Your task to perform on an android device: Clear all items from cart on ebay. Search for "logitech g502" on ebay, select the first entry, and add it to the cart. Image 0: 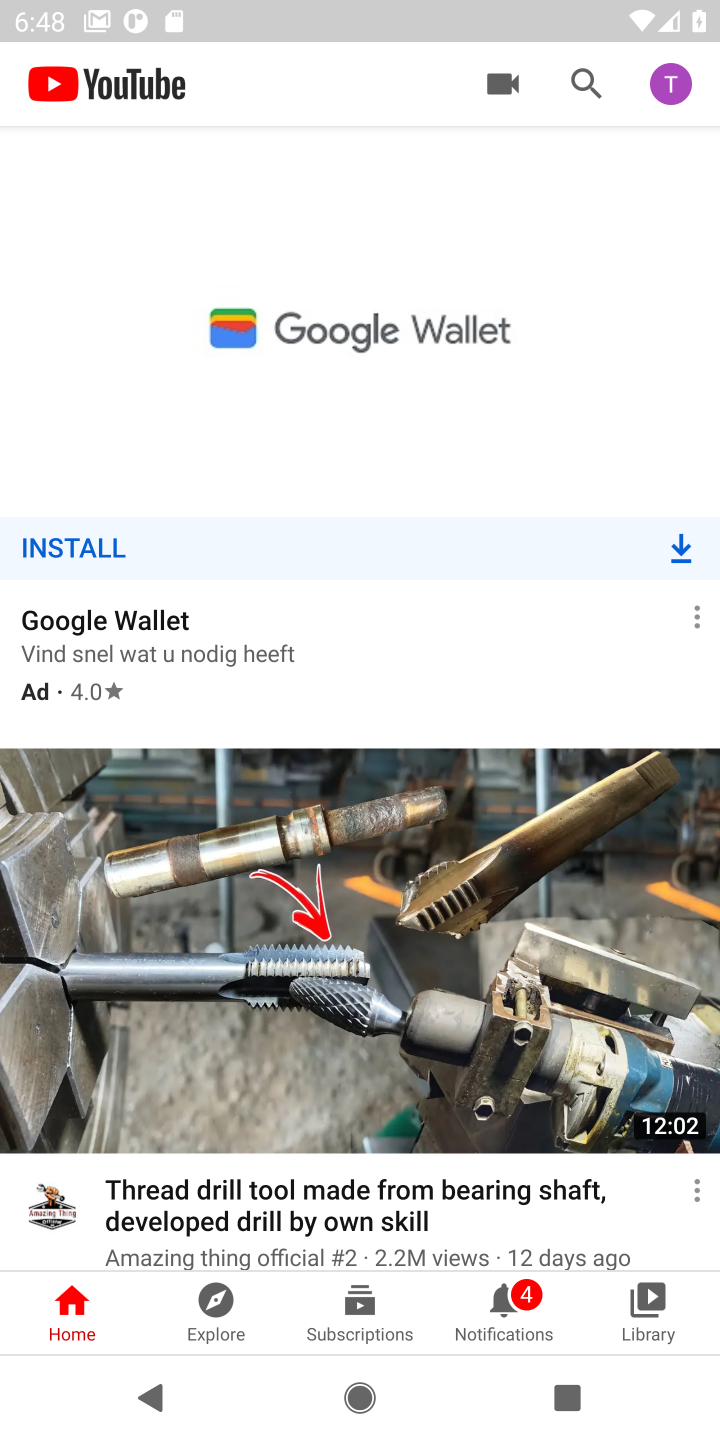
Step 0: press home button
Your task to perform on an android device: Clear all items from cart on ebay. Search for "logitech g502" on ebay, select the first entry, and add it to the cart. Image 1: 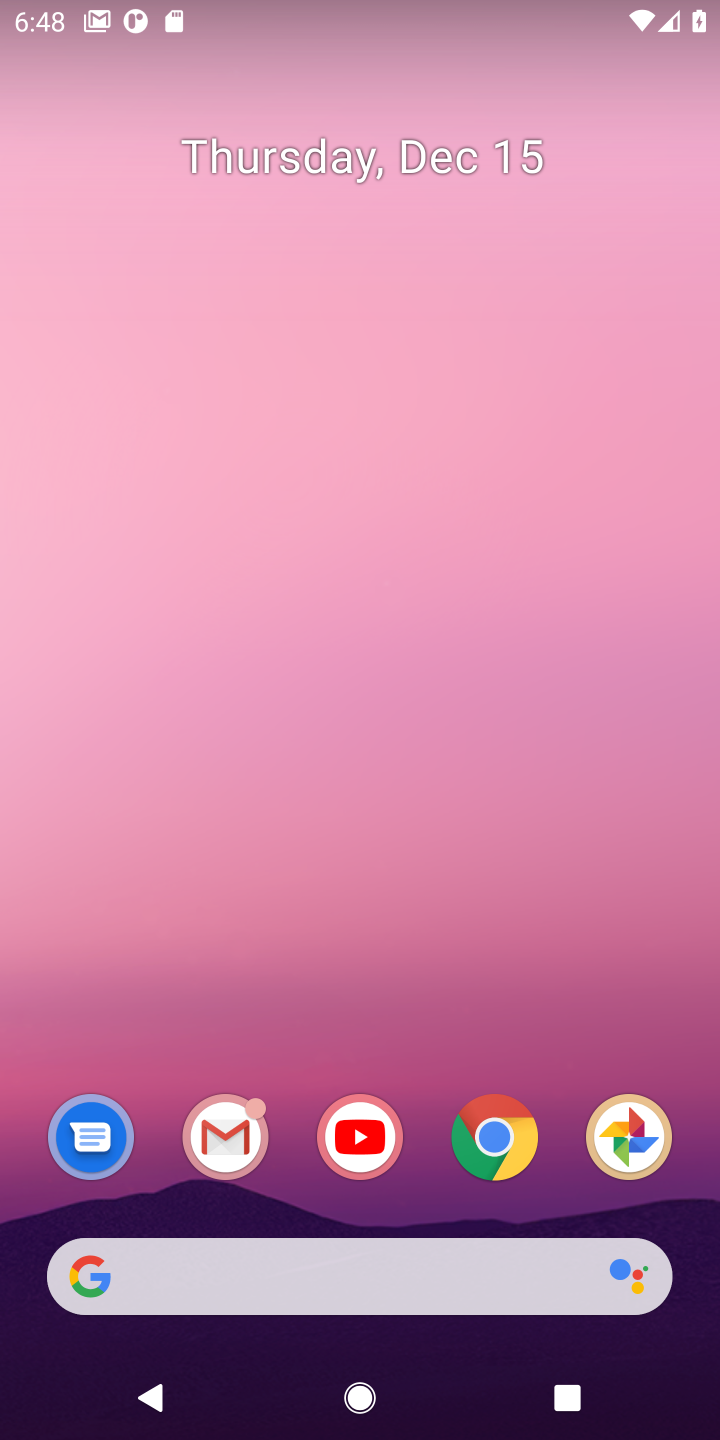
Step 1: drag from (295, 1261) to (342, 405)
Your task to perform on an android device: Clear all items from cart on ebay. Search for "logitech g502" on ebay, select the first entry, and add it to the cart. Image 2: 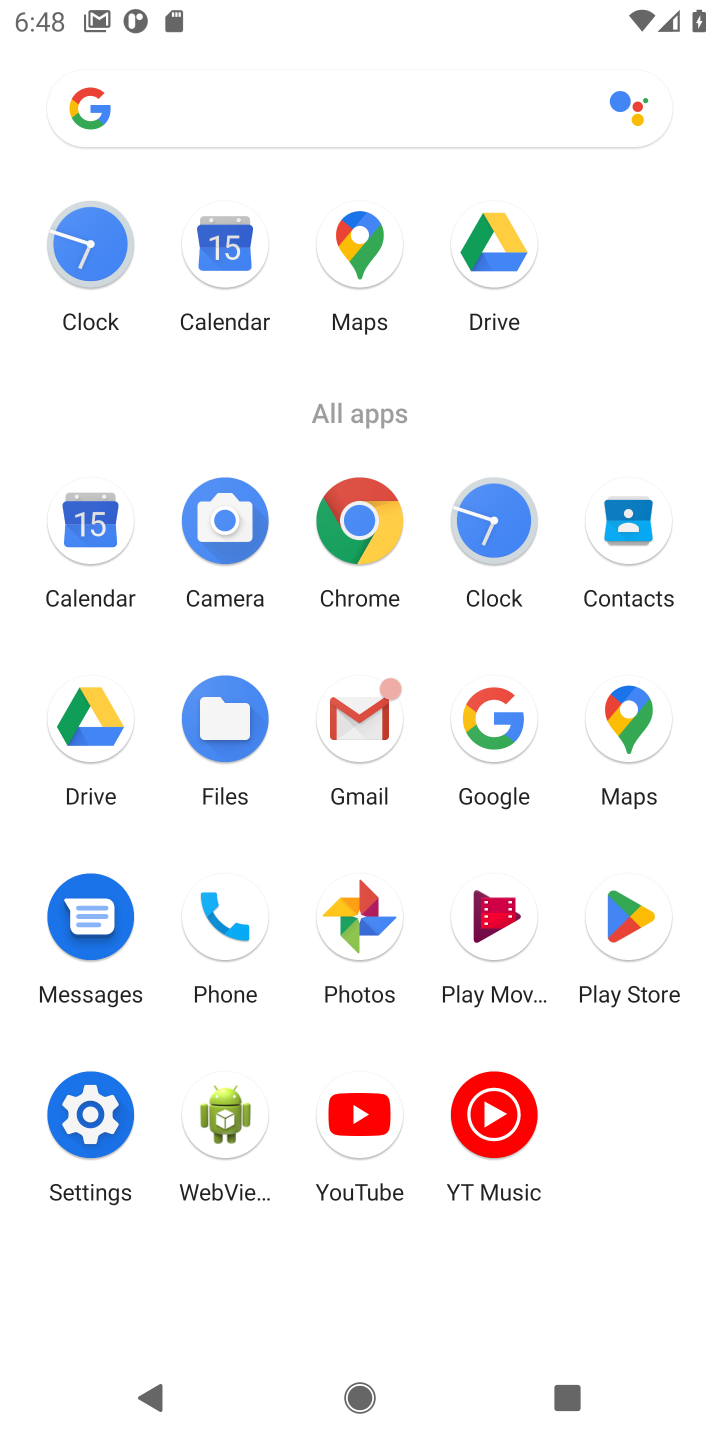
Step 2: click (482, 732)
Your task to perform on an android device: Clear all items from cart on ebay. Search for "logitech g502" on ebay, select the first entry, and add it to the cart. Image 3: 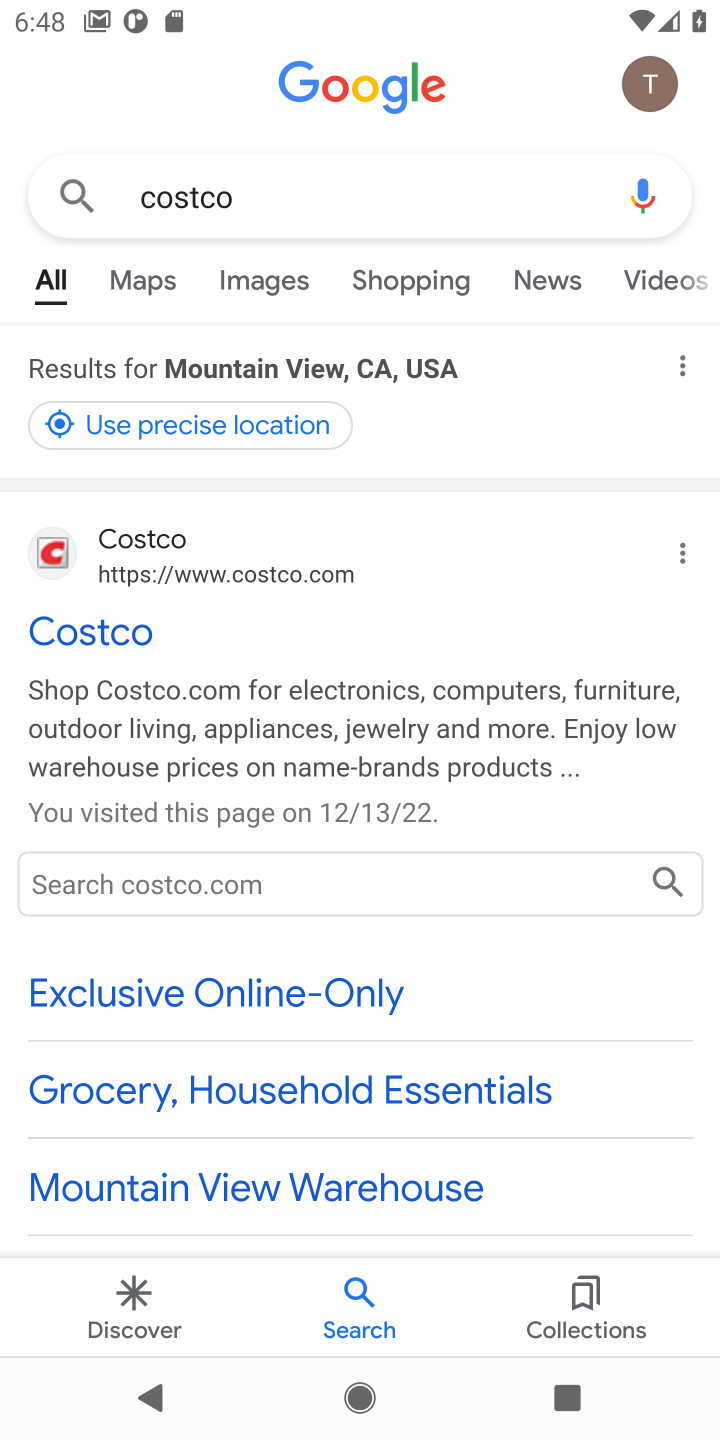
Step 3: click (177, 217)
Your task to perform on an android device: Clear all items from cart on ebay. Search for "logitech g502" on ebay, select the first entry, and add it to the cart. Image 4: 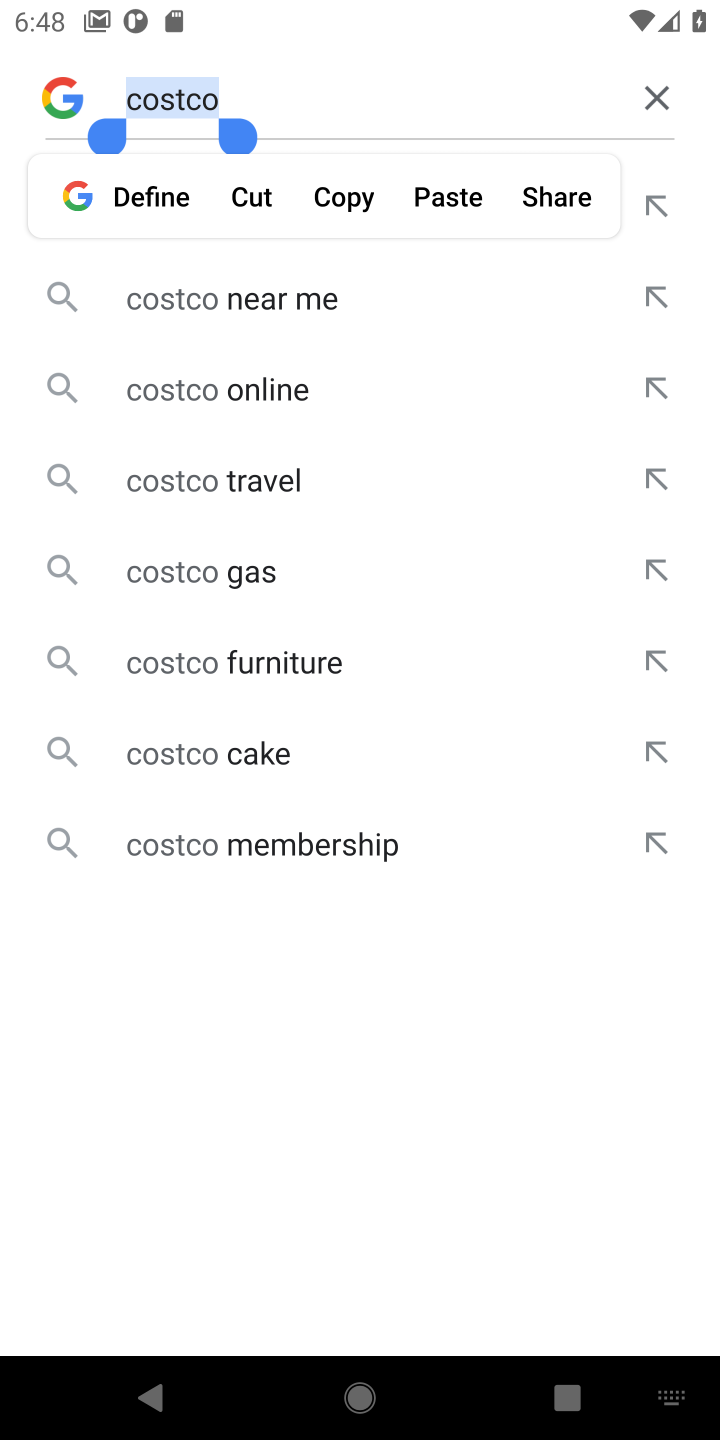
Step 4: click (649, 96)
Your task to perform on an android device: Clear all items from cart on ebay. Search for "logitech g502" on ebay, select the first entry, and add it to the cart. Image 5: 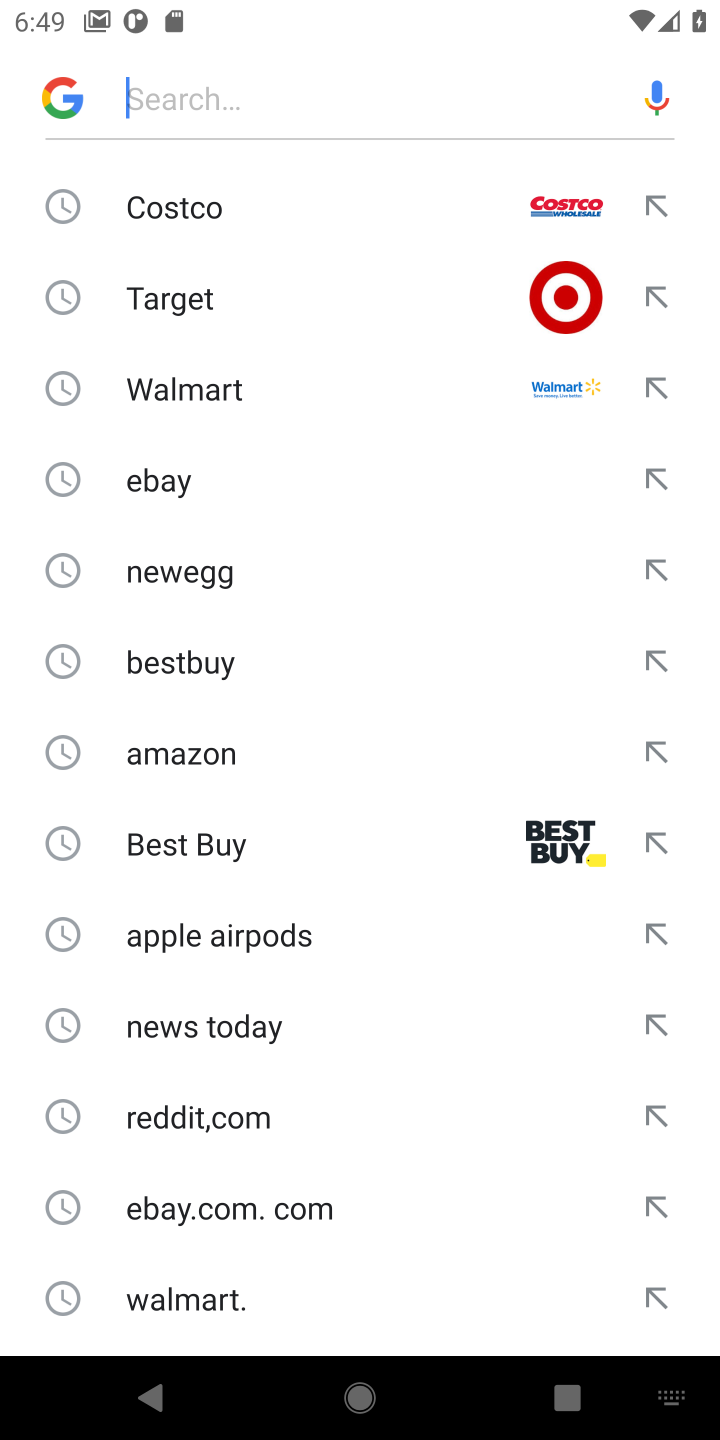
Step 5: click (152, 471)
Your task to perform on an android device: Clear all items from cart on ebay. Search for "logitech g502" on ebay, select the first entry, and add it to the cart. Image 6: 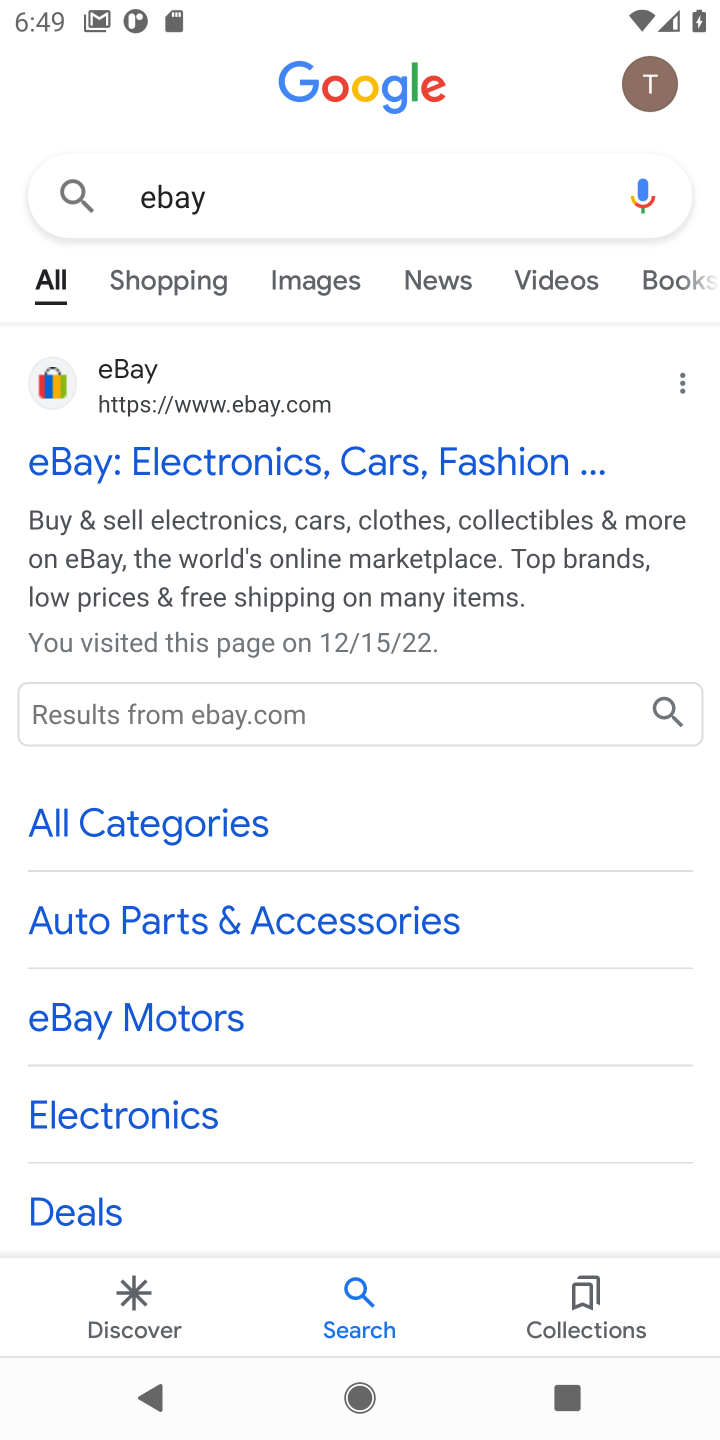
Step 6: click (226, 458)
Your task to perform on an android device: Clear all items from cart on ebay. Search for "logitech g502" on ebay, select the first entry, and add it to the cart. Image 7: 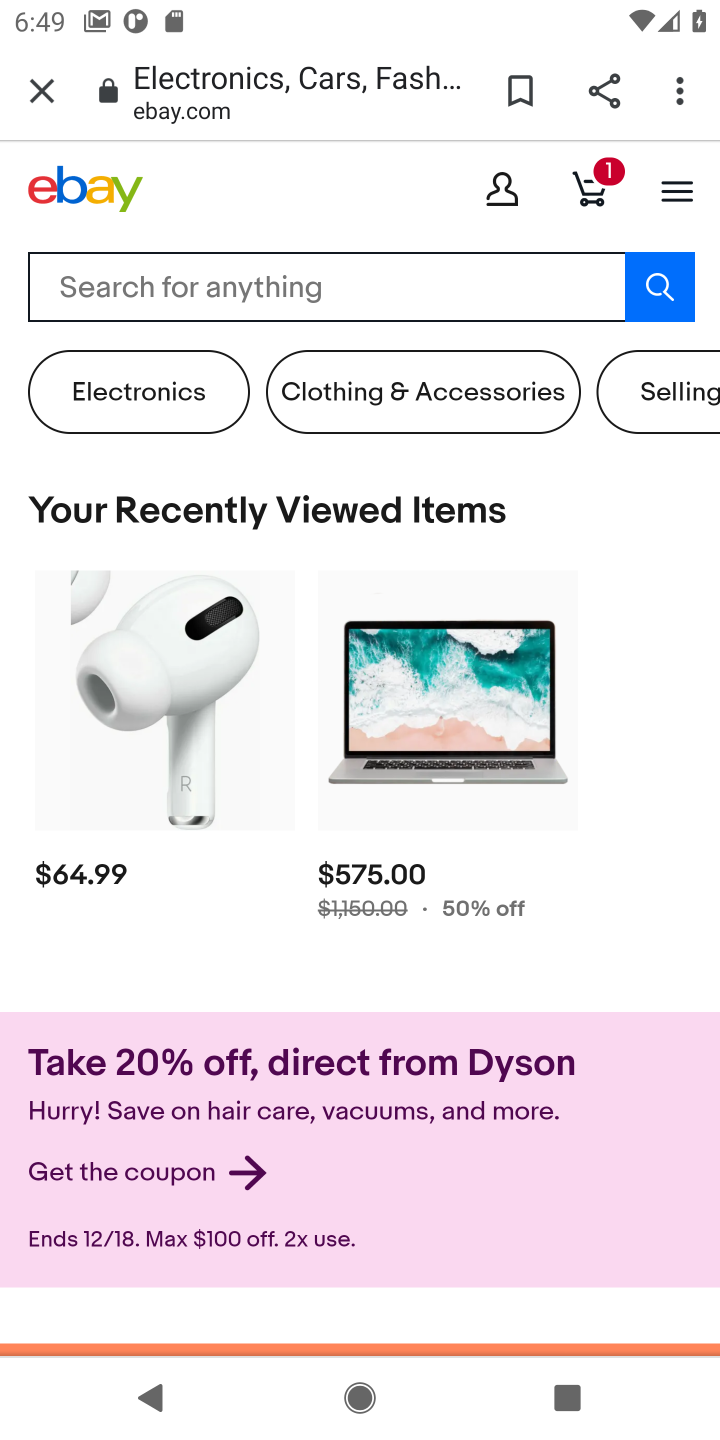
Step 7: click (595, 175)
Your task to perform on an android device: Clear all items from cart on ebay. Search for "logitech g502" on ebay, select the first entry, and add it to the cart. Image 8: 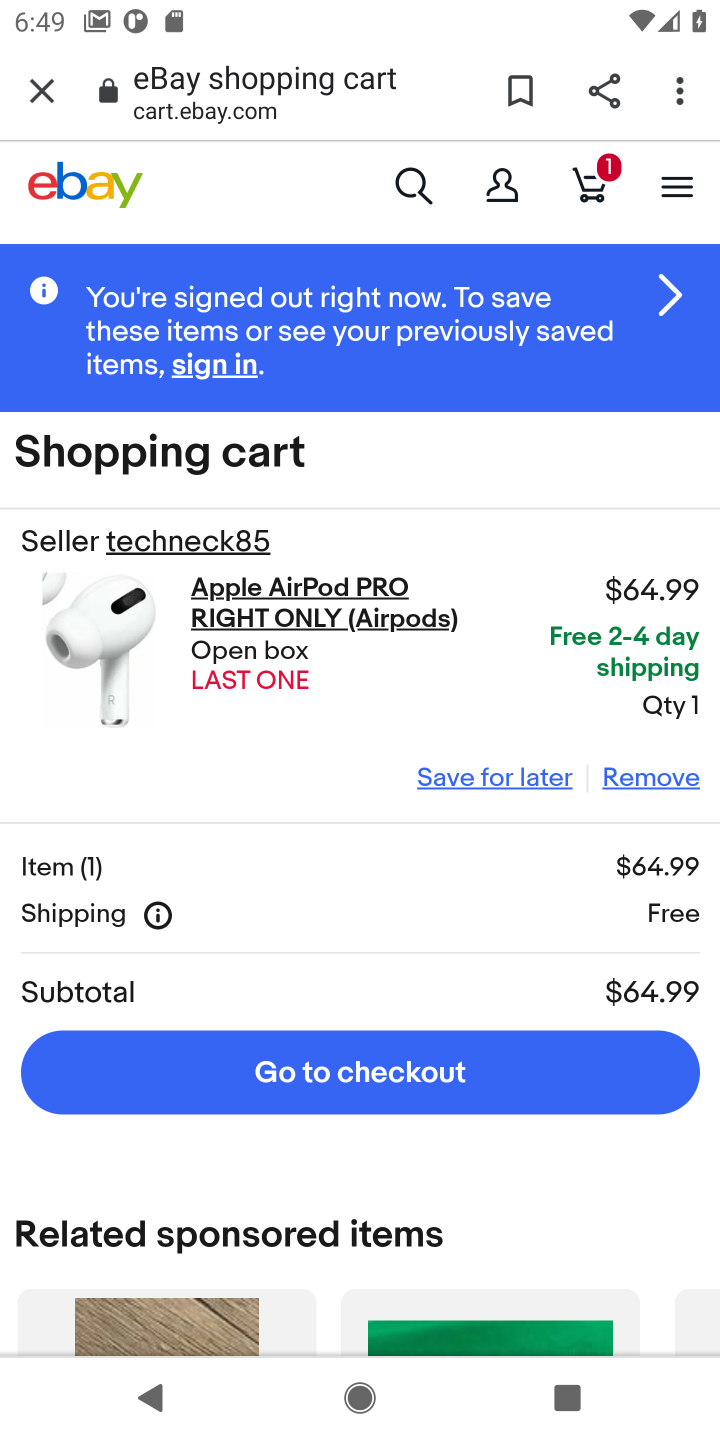
Step 8: click (653, 779)
Your task to perform on an android device: Clear all items from cart on ebay. Search for "logitech g502" on ebay, select the first entry, and add it to the cart. Image 9: 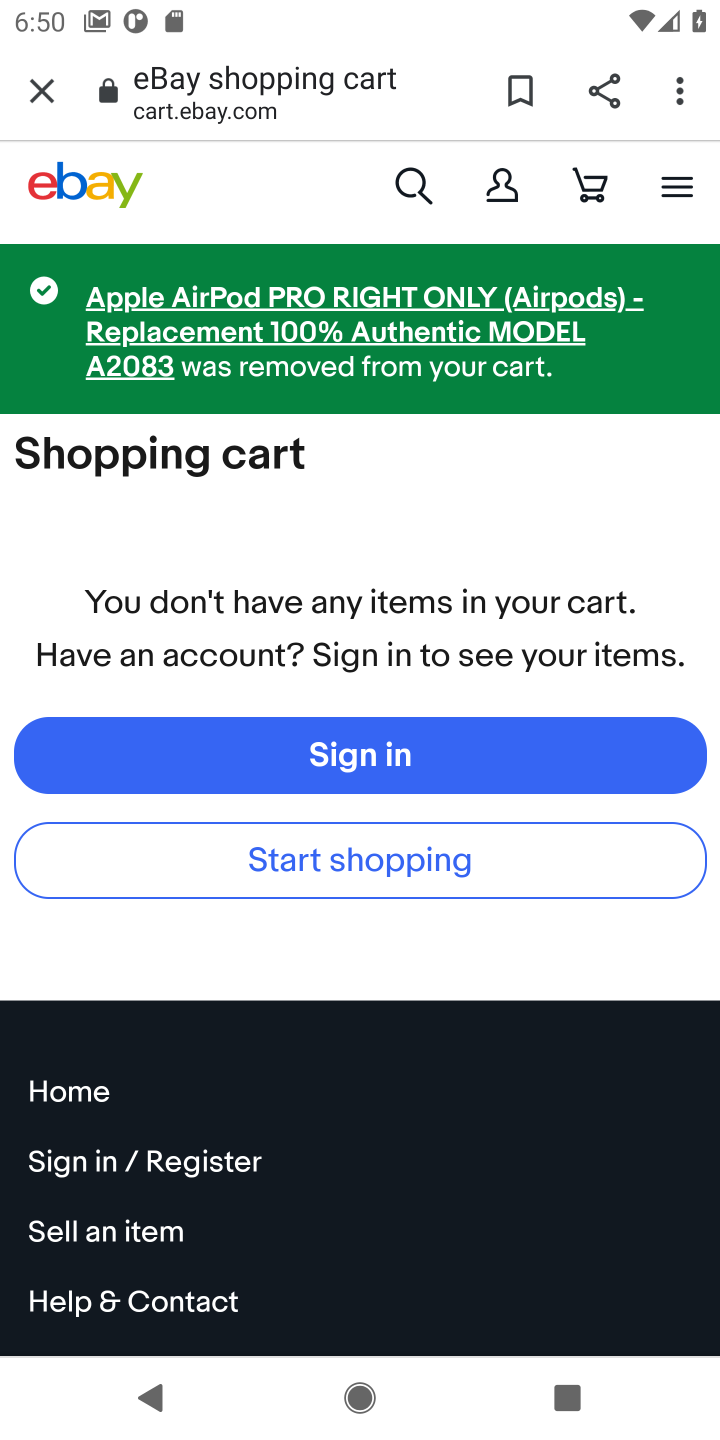
Step 9: click (408, 184)
Your task to perform on an android device: Clear all items from cart on ebay. Search for "logitech g502" on ebay, select the first entry, and add it to the cart. Image 10: 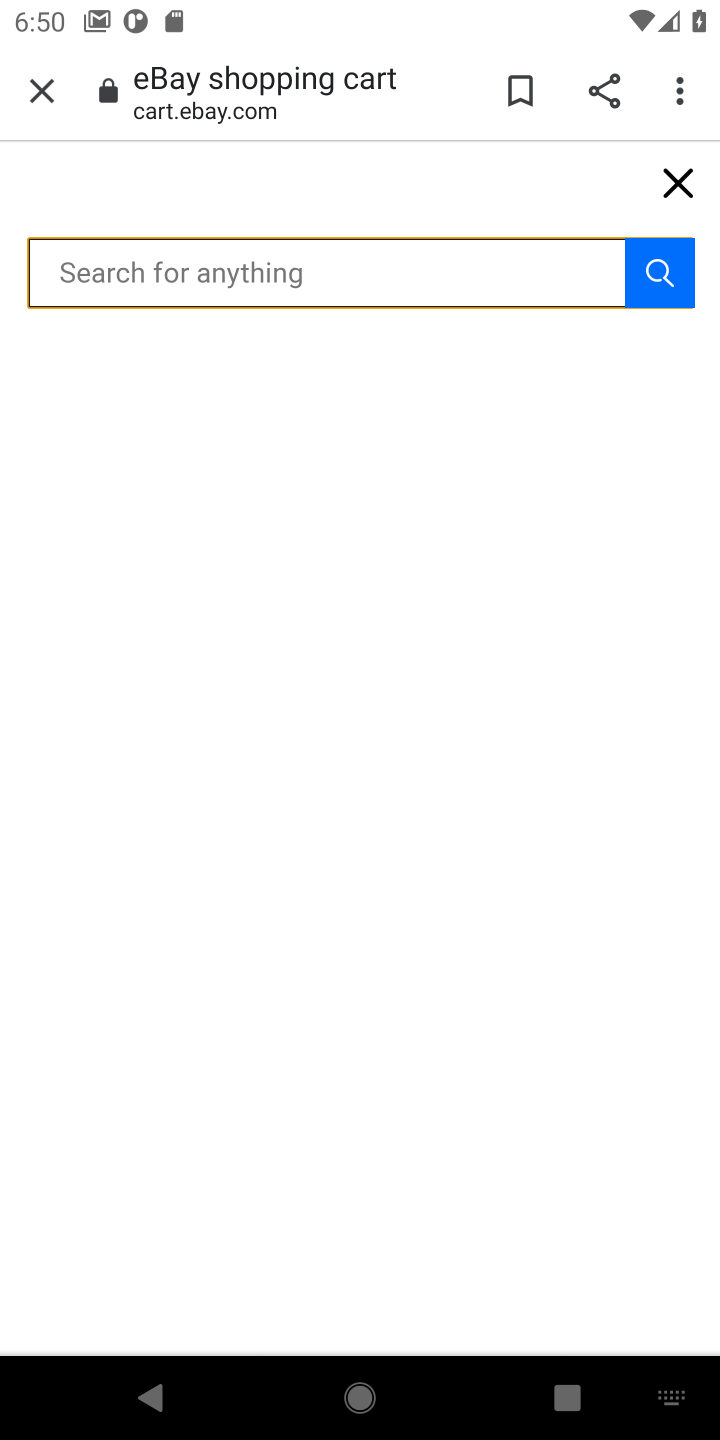
Step 10: type "logitech g502"
Your task to perform on an android device: Clear all items from cart on ebay. Search for "logitech g502" on ebay, select the first entry, and add it to the cart. Image 11: 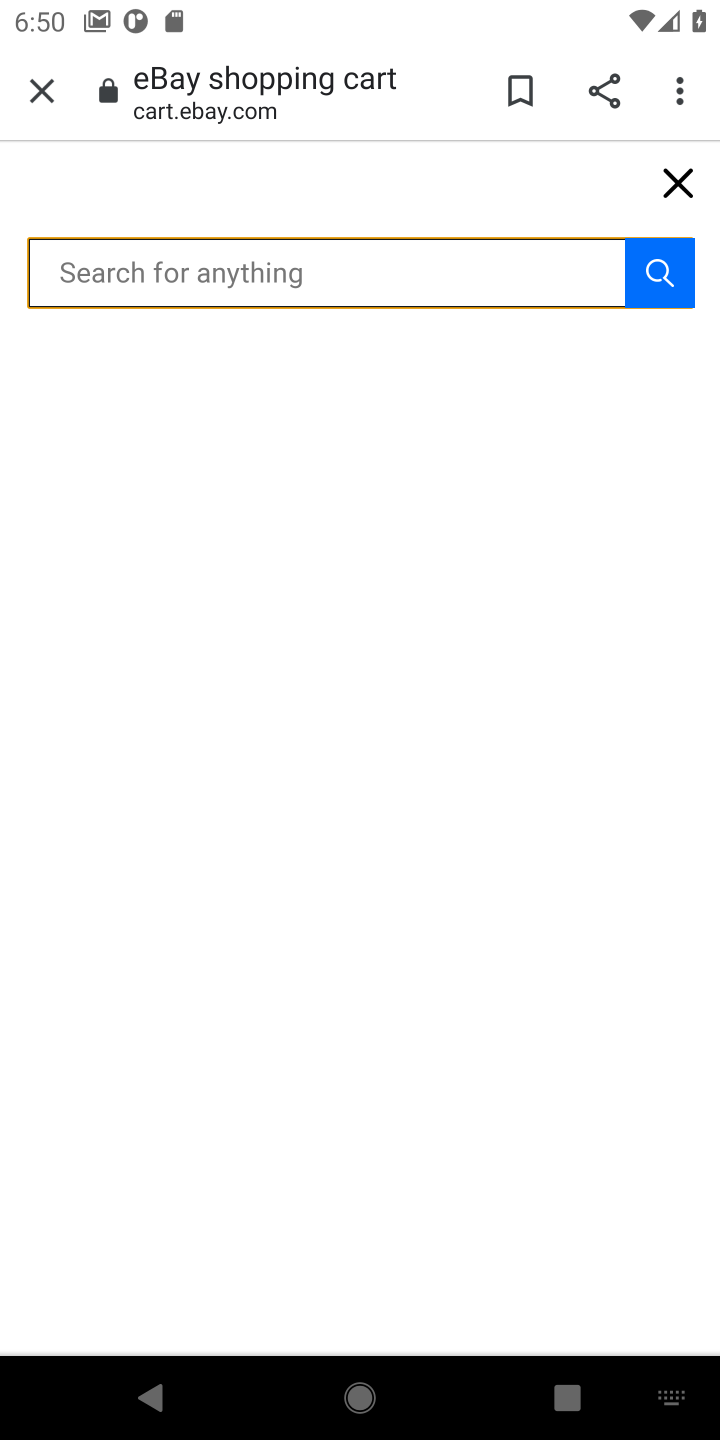
Step 11: click (645, 280)
Your task to perform on an android device: Clear all items from cart on ebay. Search for "logitech g502" on ebay, select the first entry, and add it to the cart. Image 12: 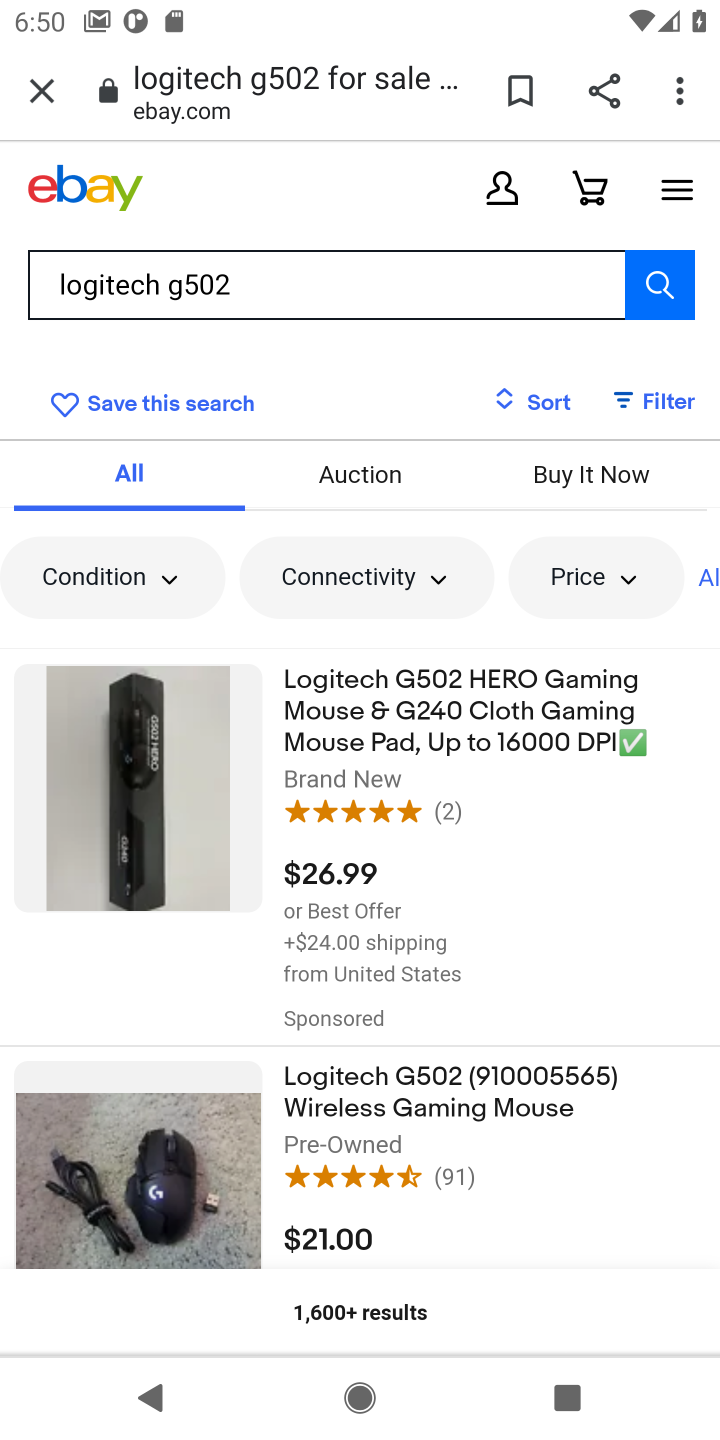
Step 12: click (372, 749)
Your task to perform on an android device: Clear all items from cart on ebay. Search for "logitech g502" on ebay, select the first entry, and add it to the cart. Image 13: 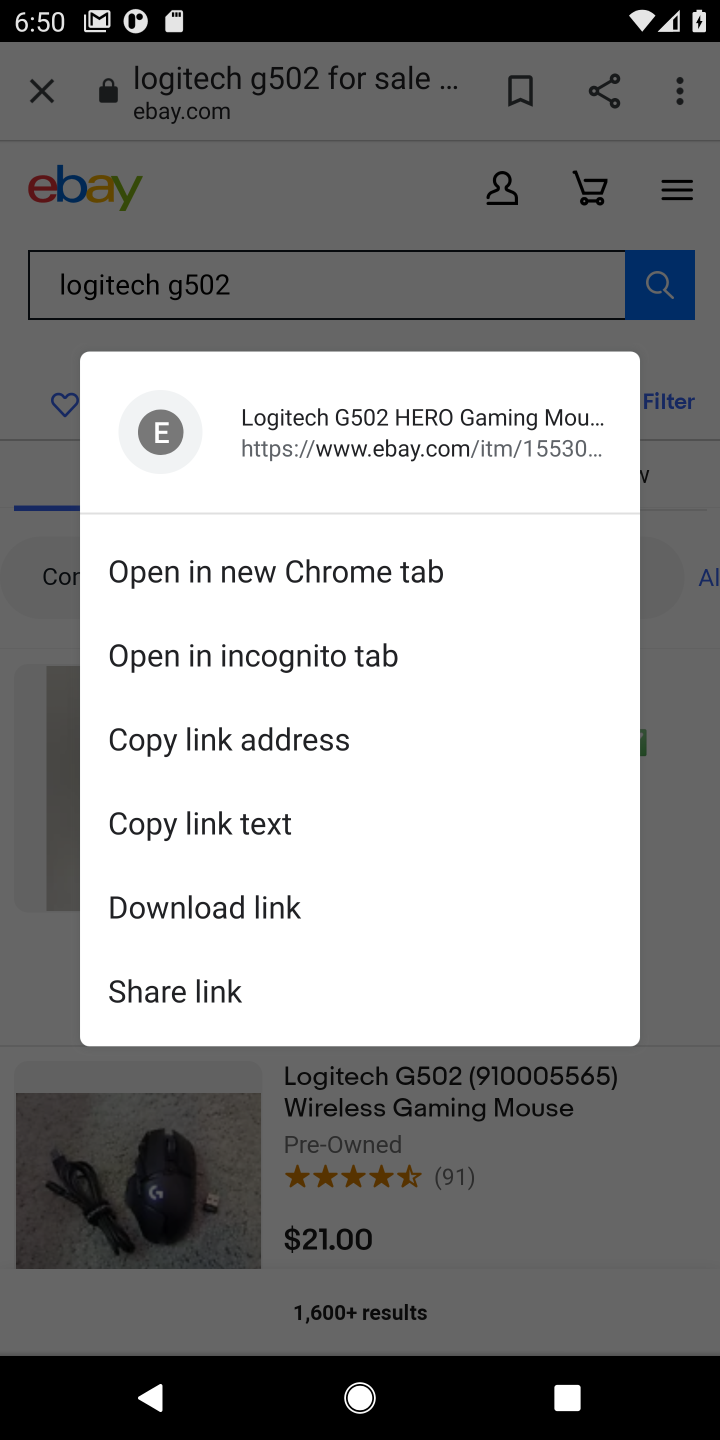
Step 13: click (669, 820)
Your task to perform on an android device: Clear all items from cart on ebay. Search for "logitech g502" on ebay, select the first entry, and add it to the cart. Image 14: 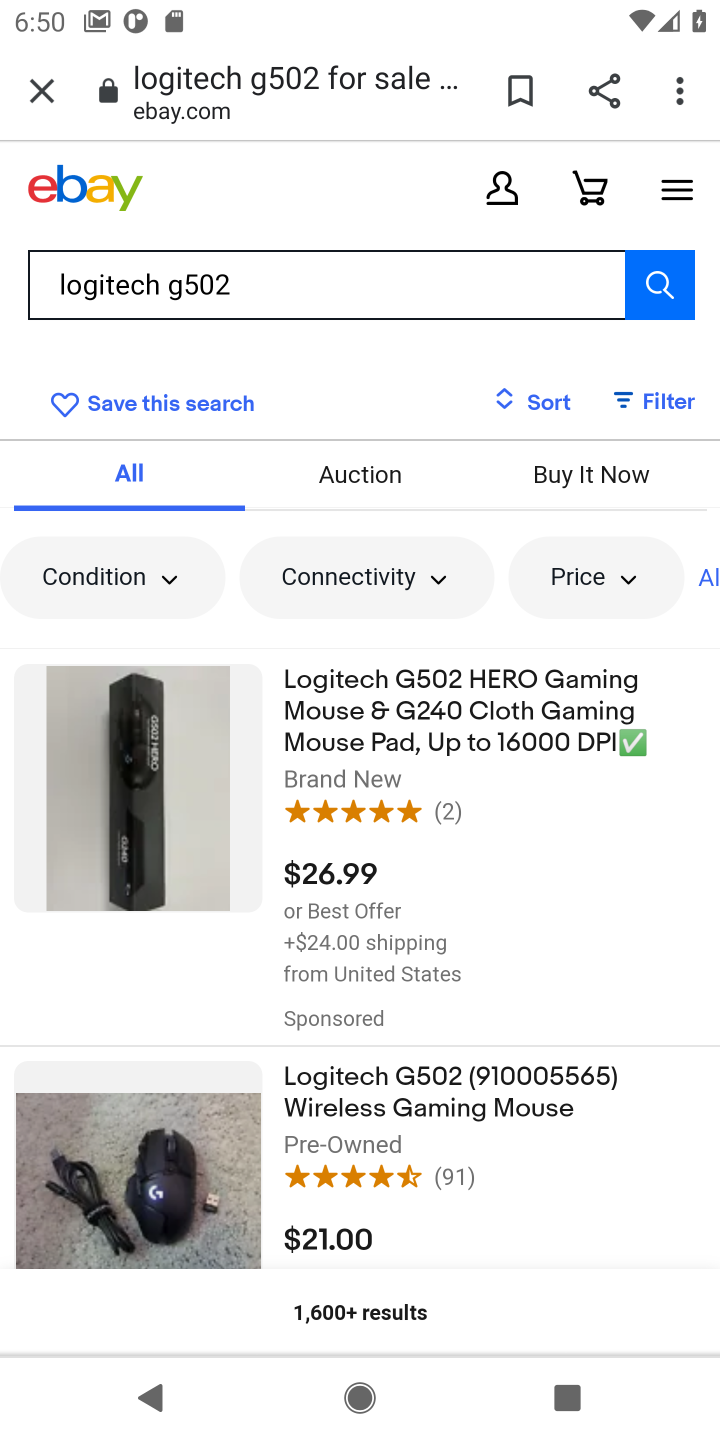
Step 14: click (392, 698)
Your task to perform on an android device: Clear all items from cart on ebay. Search for "logitech g502" on ebay, select the first entry, and add it to the cart. Image 15: 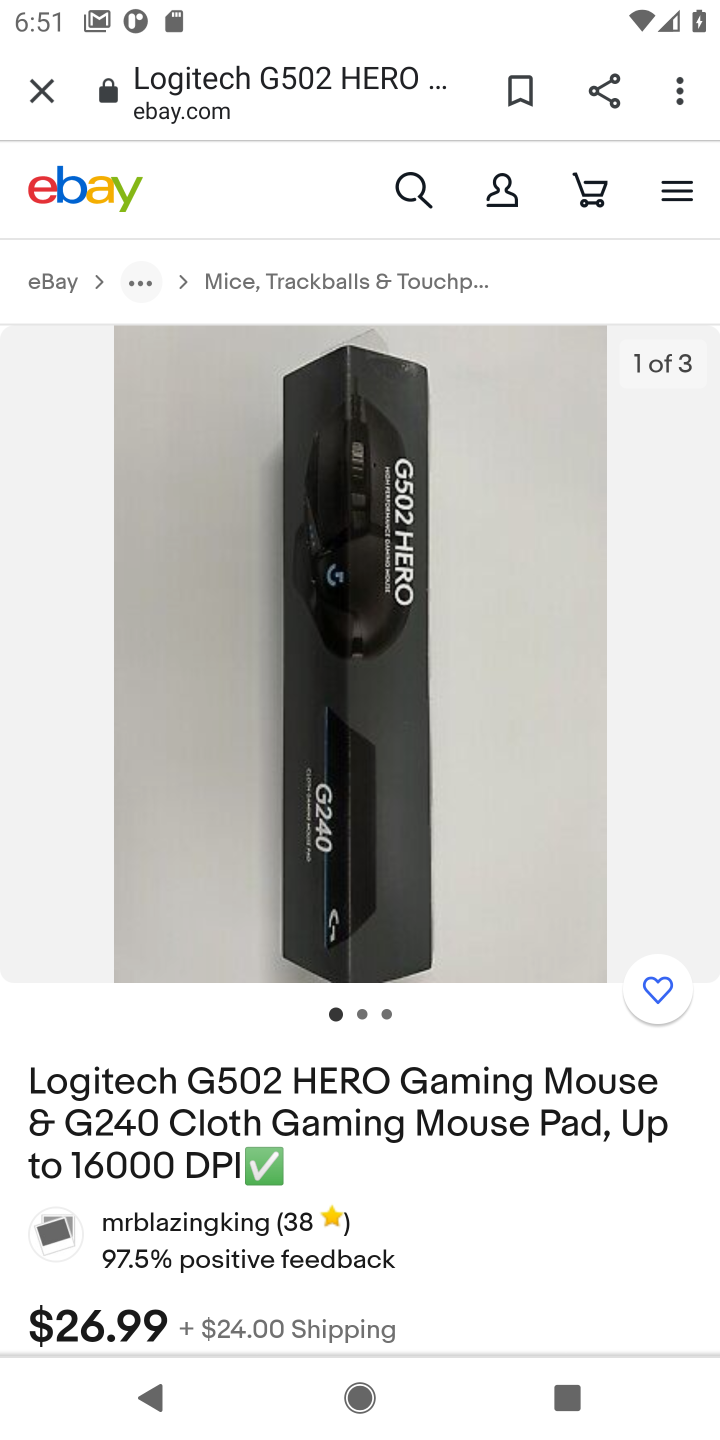
Step 15: drag from (382, 1233) to (456, 569)
Your task to perform on an android device: Clear all items from cart on ebay. Search for "logitech g502" on ebay, select the first entry, and add it to the cart. Image 16: 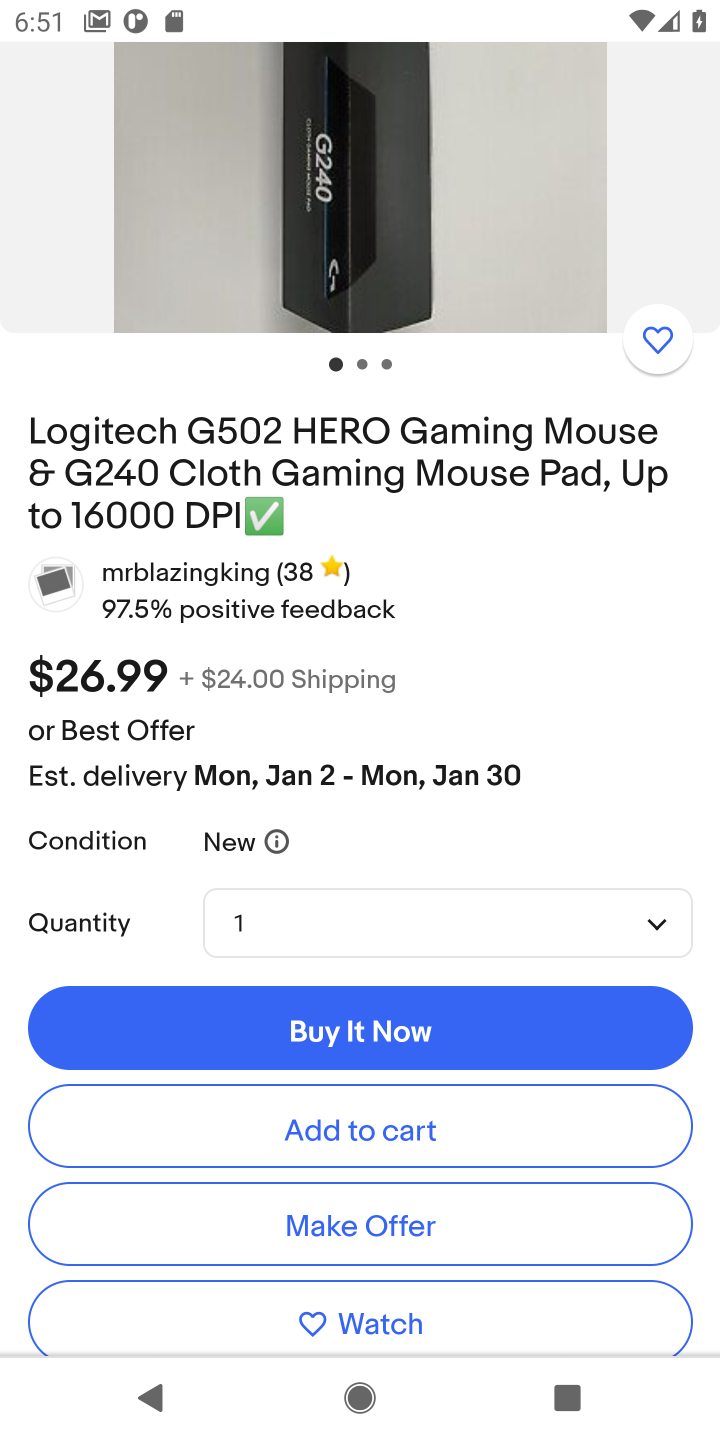
Step 16: click (390, 1120)
Your task to perform on an android device: Clear all items from cart on ebay. Search for "logitech g502" on ebay, select the first entry, and add it to the cart. Image 17: 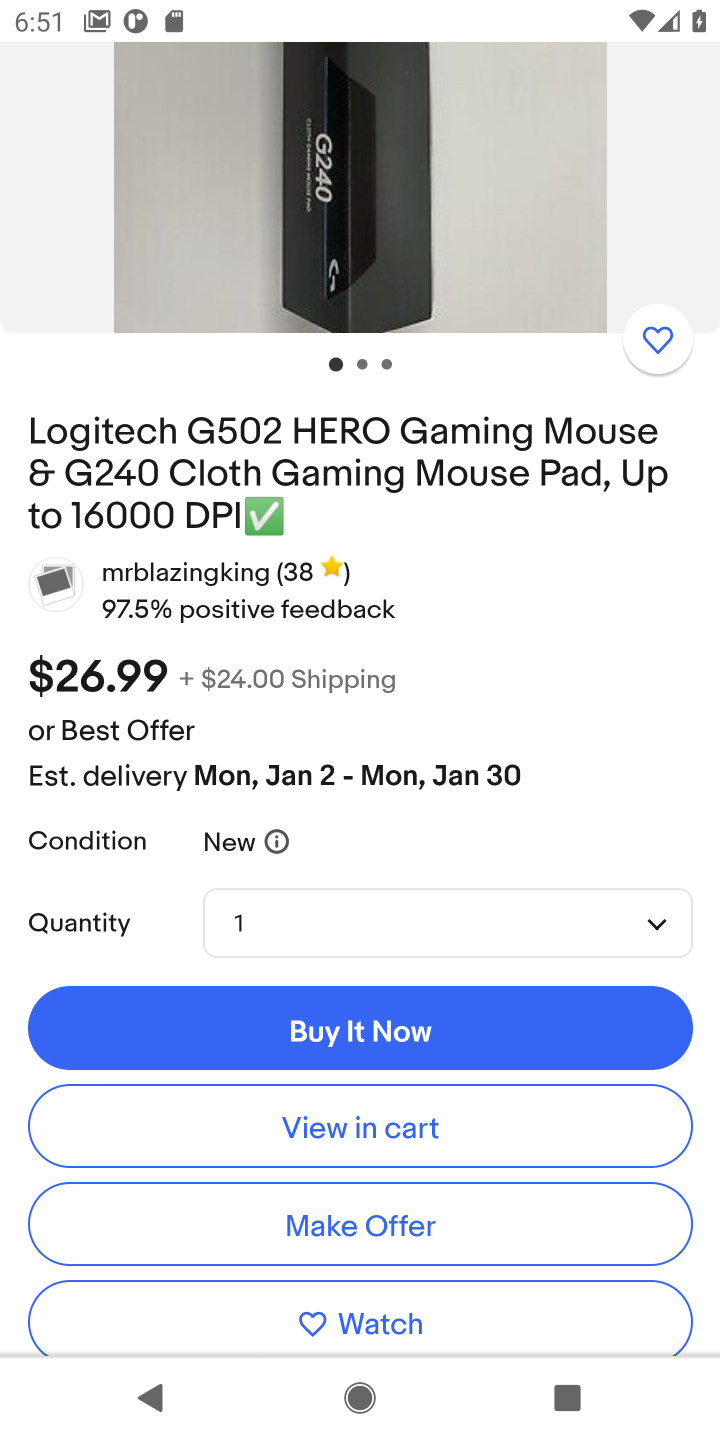
Step 17: click (390, 1124)
Your task to perform on an android device: Clear all items from cart on ebay. Search for "logitech g502" on ebay, select the first entry, and add it to the cart. Image 18: 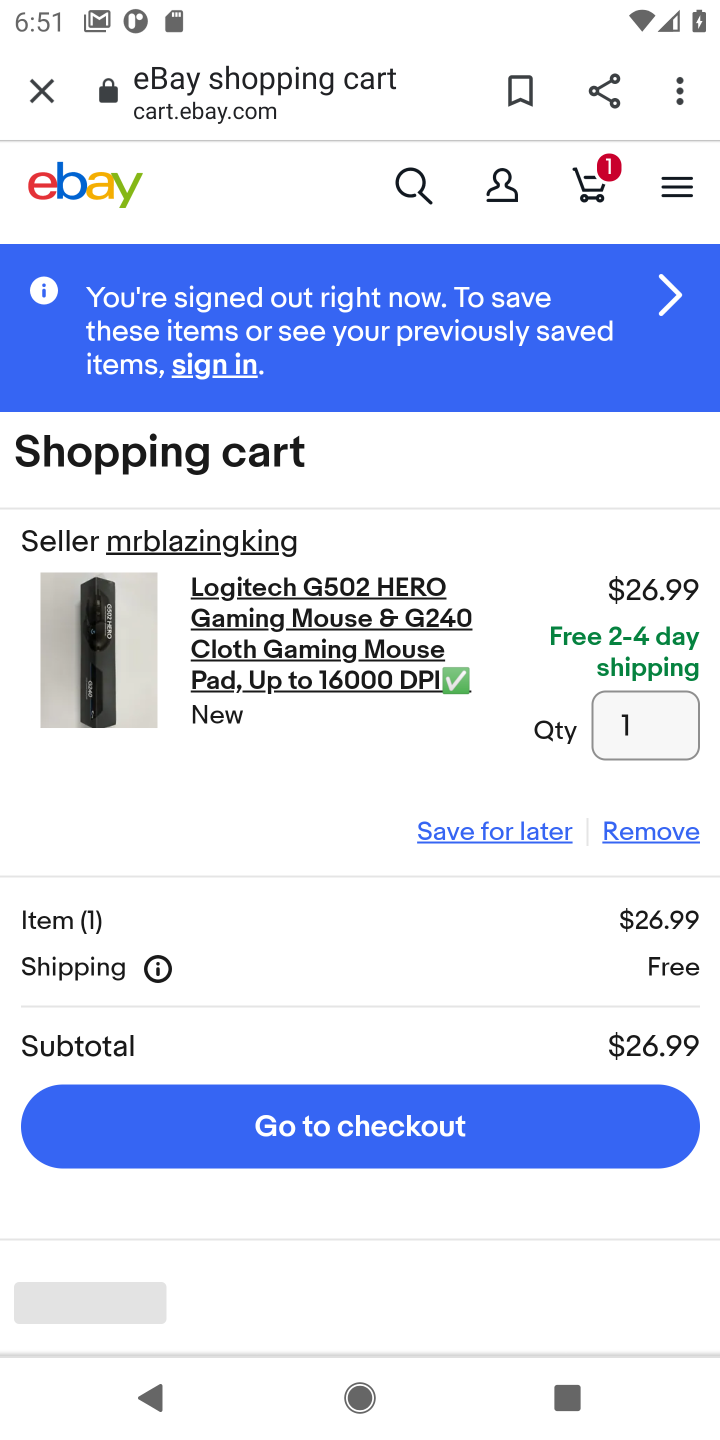
Step 18: click (390, 1124)
Your task to perform on an android device: Clear all items from cart on ebay. Search for "logitech g502" on ebay, select the first entry, and add it to the cart. Image 19: 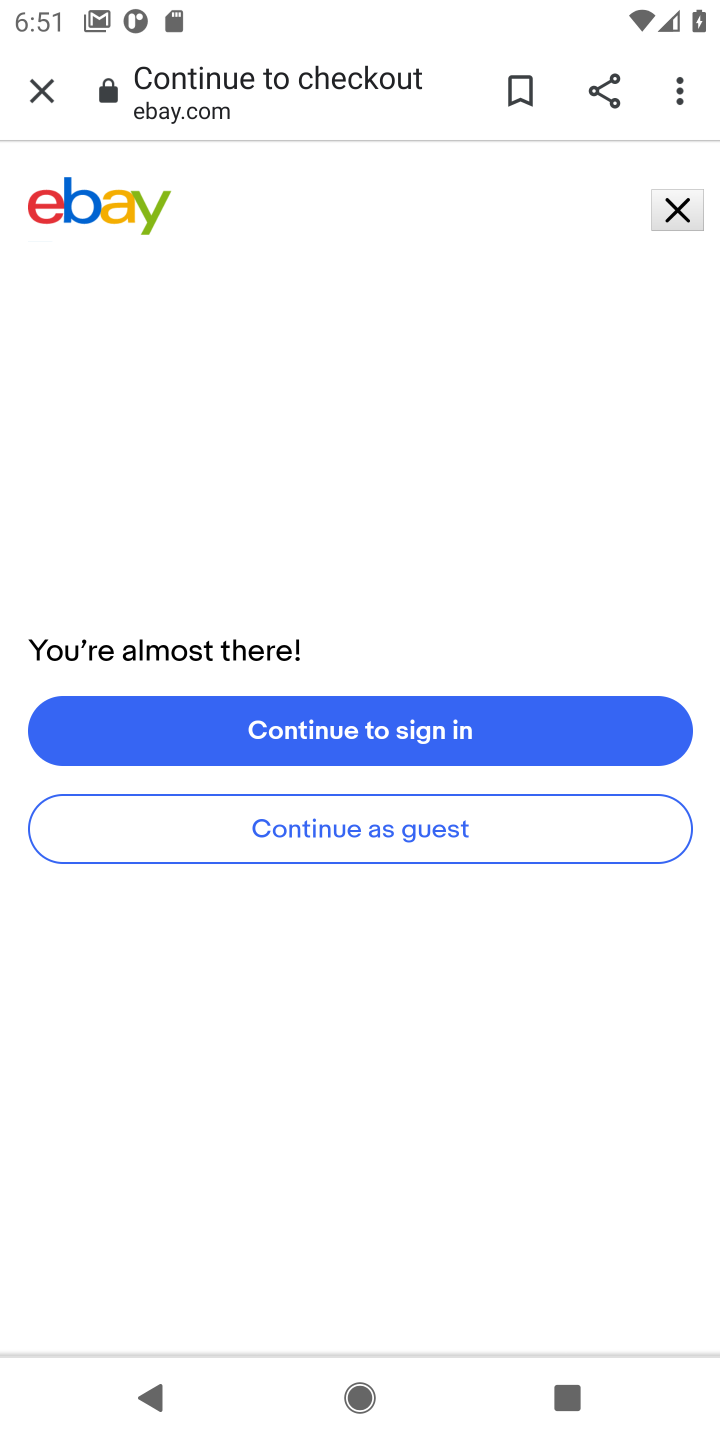
Step 19: task complete